Your task to perform on an android device: toggle show notifications on the lock screen Image 0: 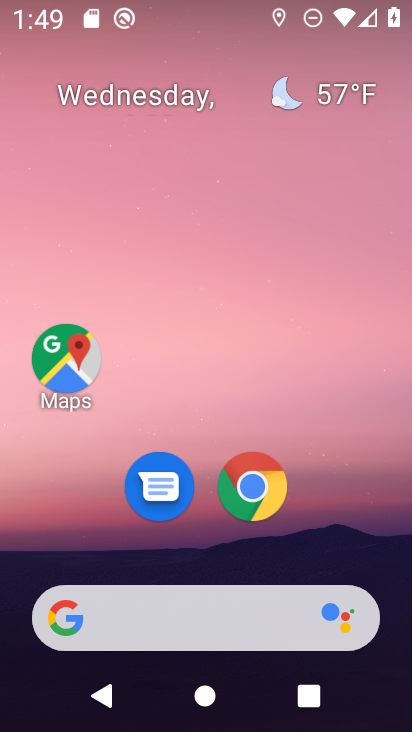
Step 0: drag from (361, 541) to (366, 168)
Your task to perform on an android device: toggle show notifications on the lock screen Image 1: 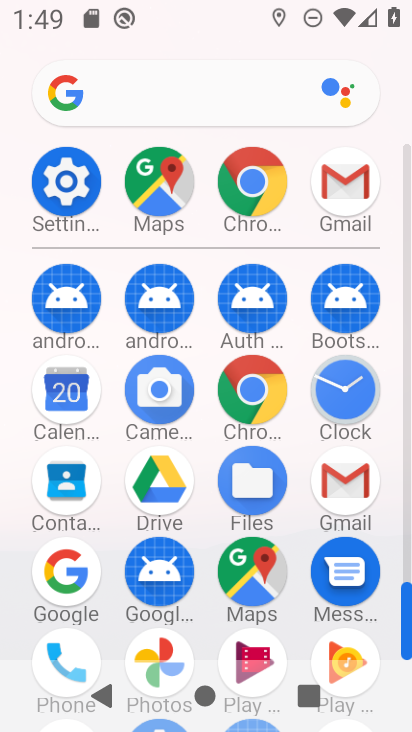
Step 1: click (78, 191)
Your task to perform on an android device: toggle show notifications on the lock screen Image 2: 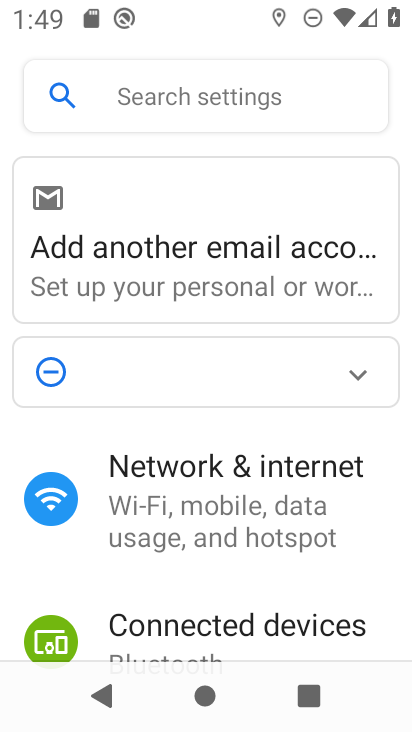
Step 2: drag from (367, 536) to (378, 387)
Your task to perform on an android device: toggle show notifications on the lock screen Image 3: 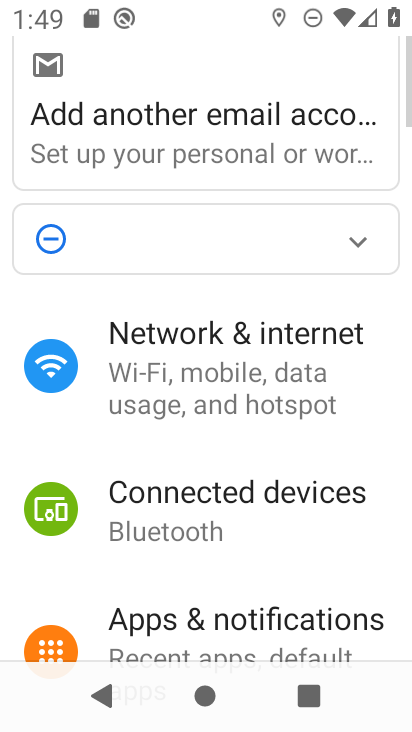
Step 3: drag from (369, 562) to (385, 354)
Your task to perform on an android device: toggle show notifications on the lock screen Image 4: 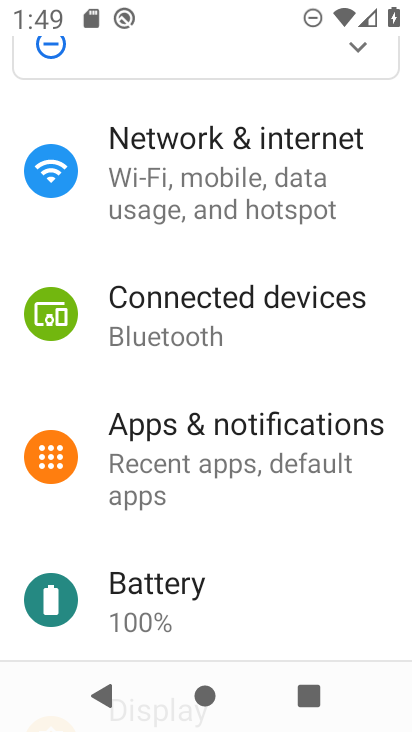
Step 4: drag from (375, 443) to (384, 337)
Your task to perform on an android device: toggle show notifications on the lock screen Image 5: 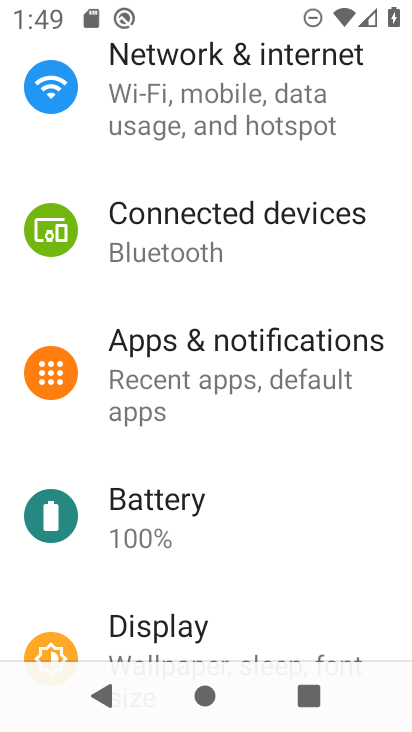
Step 5: drag from (377, 408) to (381, 301)
Your task to perform on an android device: toggle show notifications on the lock screen Image 6: 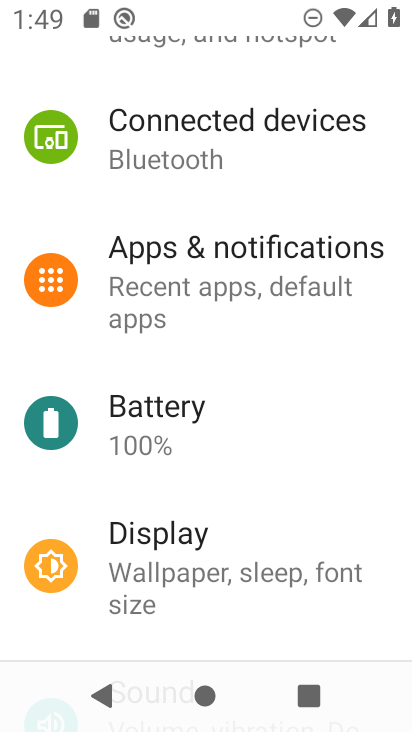
Step 6: click (343, 281)
Your task to perform on an android device: toggle show notifications on the lock screen Image 7: 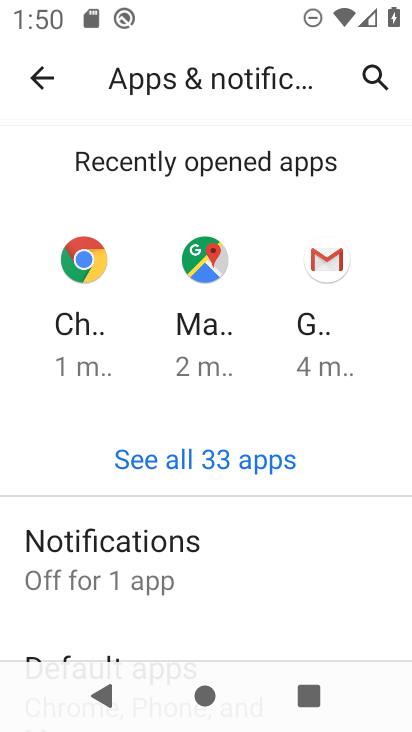
Step 7: click (251, 534)
Your task to perform on an android device: toggle show notifications on the lock screen Image 8: 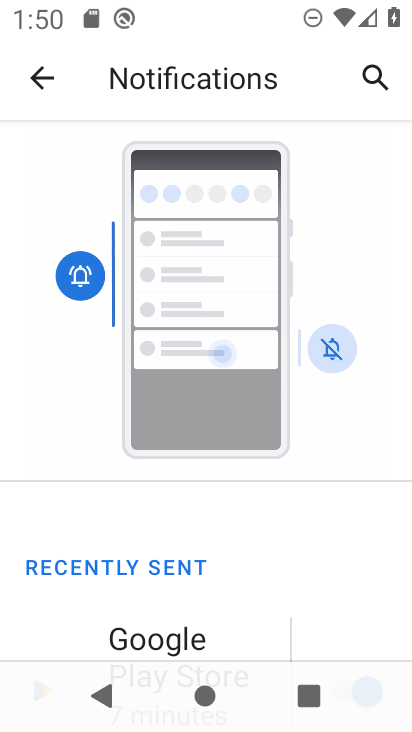
Step 8: drag from (358, 603) to (339, 455)
Your task to perform on an android device: toggle show notifications on the lock screen Image 9: 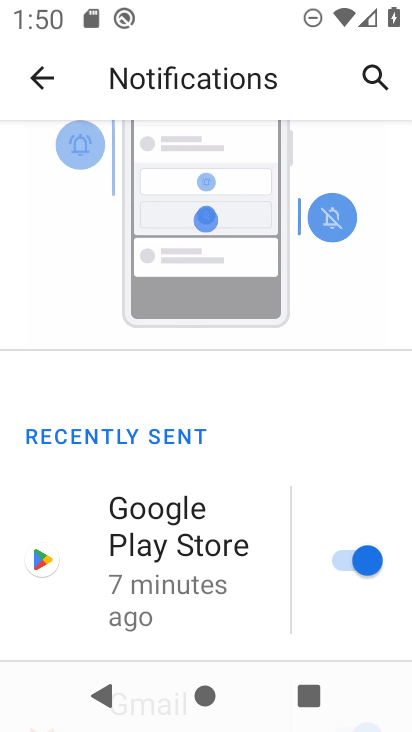
Step 9: drag from (268, 597) to (246, 425)
Your task to perform on an android device: toggle show notifications on the lock screen Image 10: 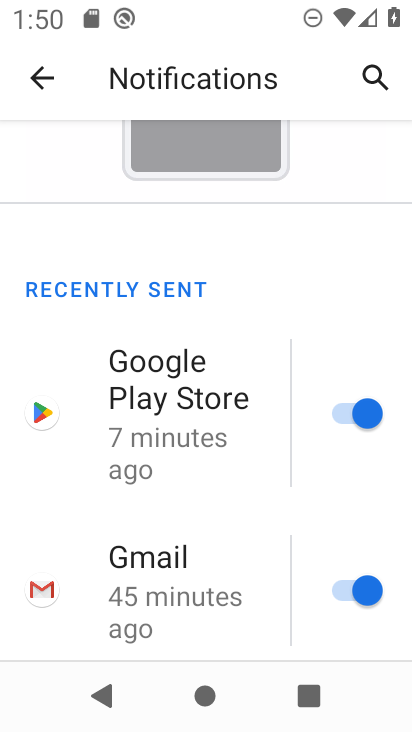
Step 10: drag from (244, 588) to (275, 407)
Your task to perform on an android device: toggle show notifications on the lock screen Image 11: 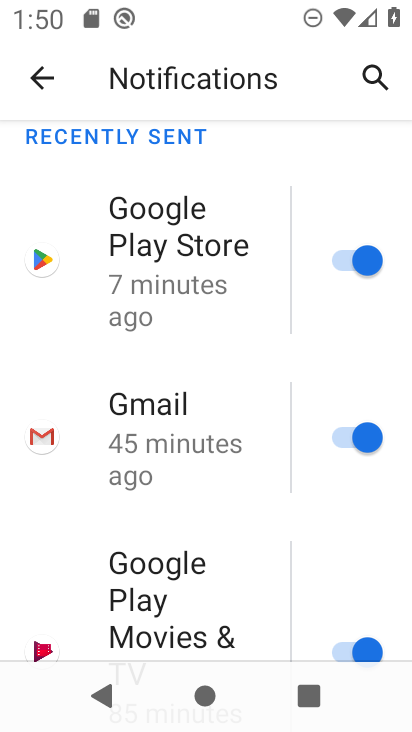
Step 11: drag from (255, 612) to (297, 462)
Your task to perform on an android device: toggle show notifications on the lock screen Image 12: 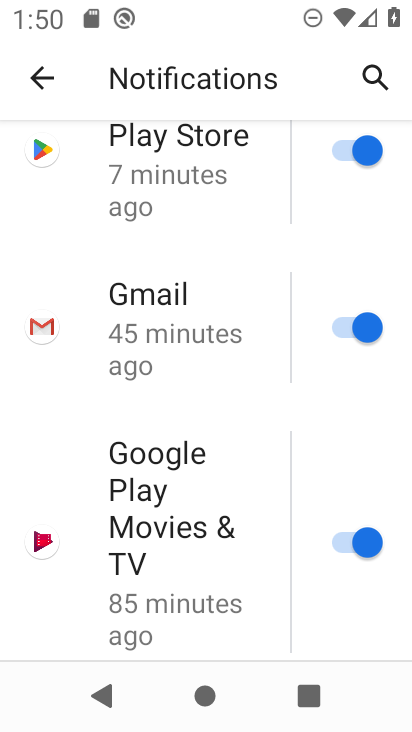
Step 12: drag from (246, 583) to (244, 465)
Your task to perform on an android device: toggle show notifications on the lock screen Image 13: 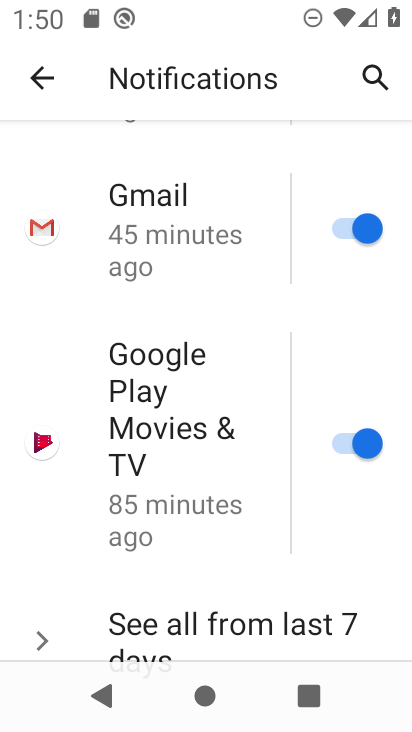
Step 13: drag from (247, 625) to (252, 459)
Your task to perform on an android device: toggle show notifications on the lock screen Image 14: 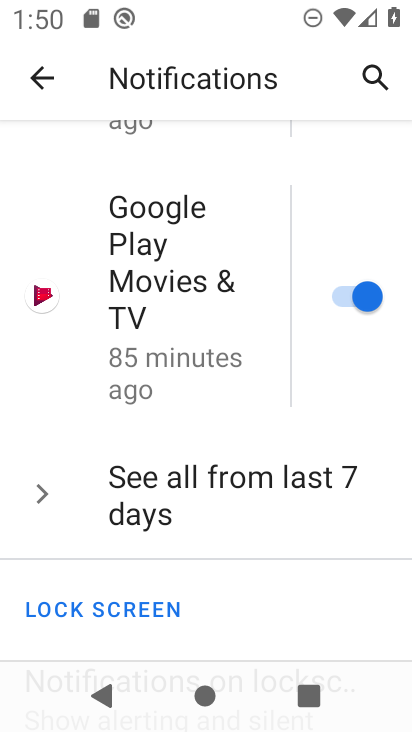
Step 14: drag from (259, 620) to (267, 442)
Your task to perform on an android device: toggle show notifications on the lock screen Image 15: 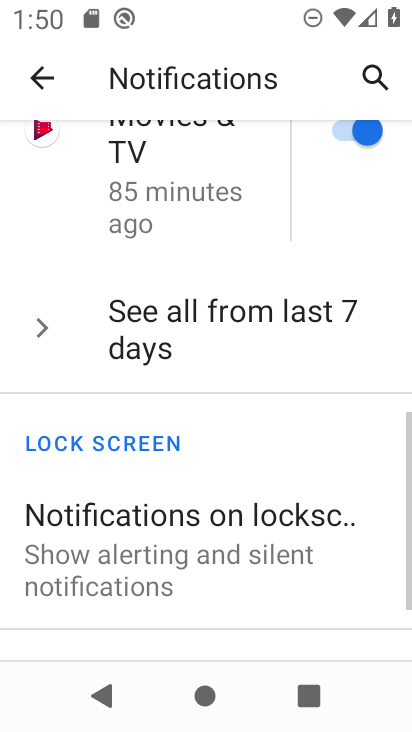
Step 15: click (261, 557)
Your task to perform on an android device: toggle show notifications on the lock screen Image 16: 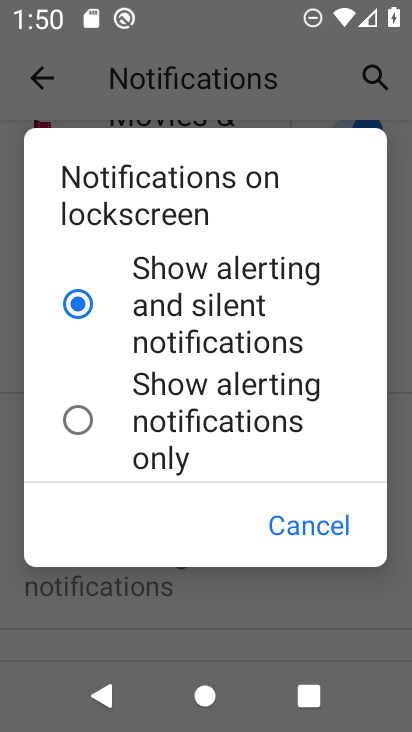
Step 16: click (277, 420)
Your task to perform on an android device: toggle show notifications on the lock screen Image 17: 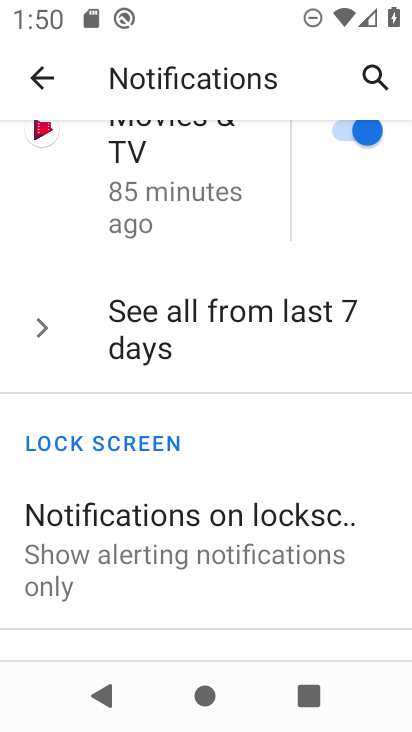
Step 17: task complete